Your task to perform on an android device: open wifi settings Image 0: 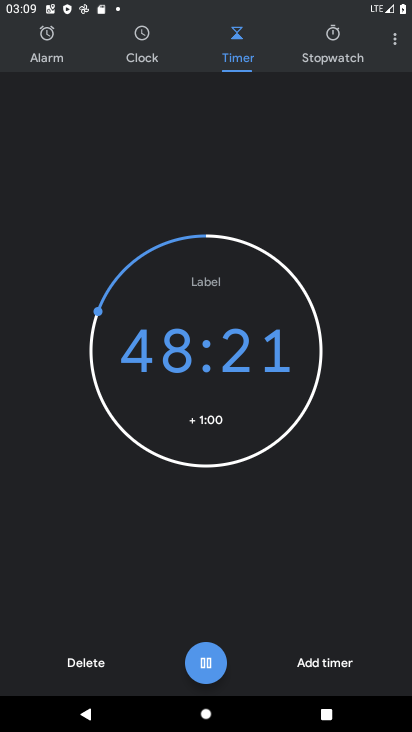
Step 0: press home button
Your task to perform on an android device: open wifi settings Image 1: 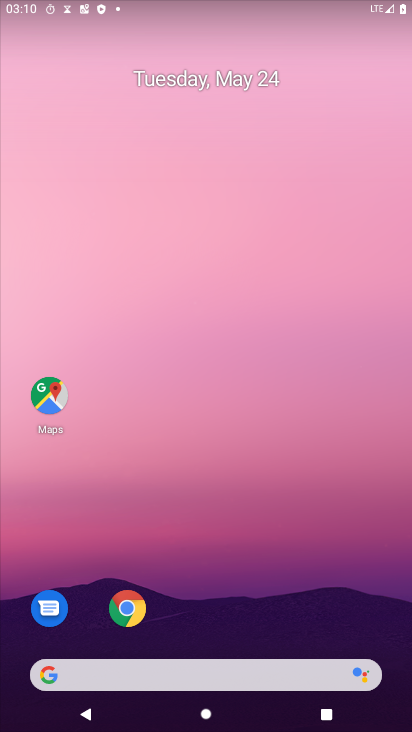
Step 1: drag from (242, 630) to (195, 119)
Your task to perform on an android device: open wifi settings Image 2: 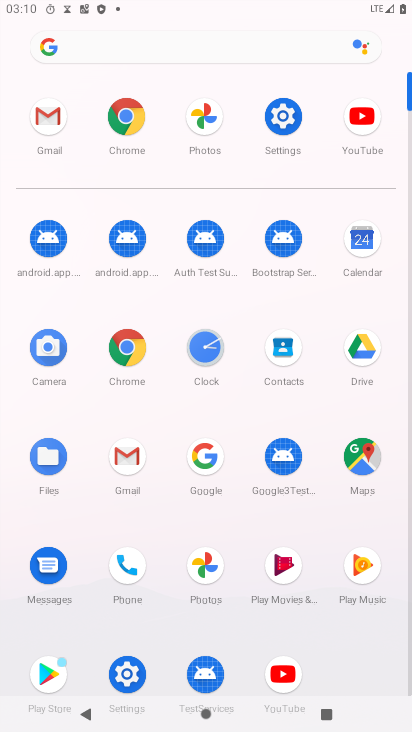
Step 2: click (285, 112)
Your task to perform on an android device: open wifi settings Image 3: 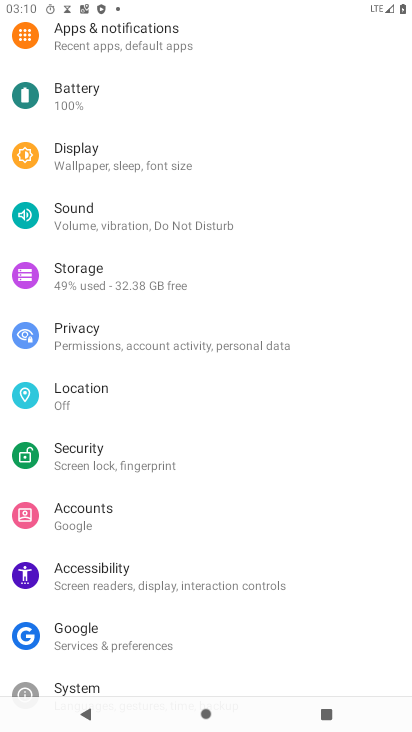
Step 3: drag from (204, 96) to (266, 565)
Your task to perform on an android device: open wifi settings Image 4: 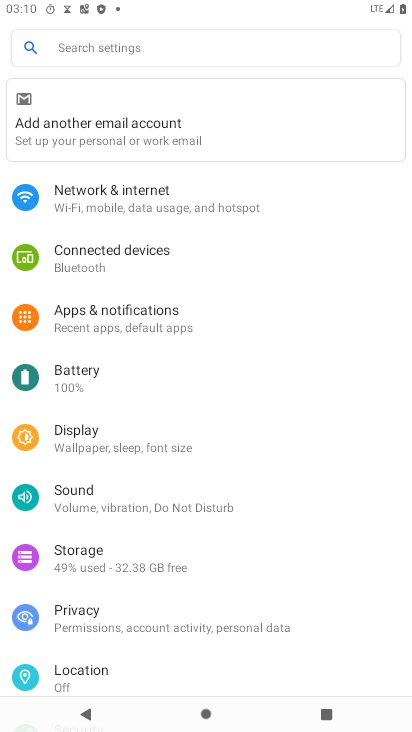
Step 4: click (172, 209)
Your task to perform on an android device: open wifi settings Image 5: 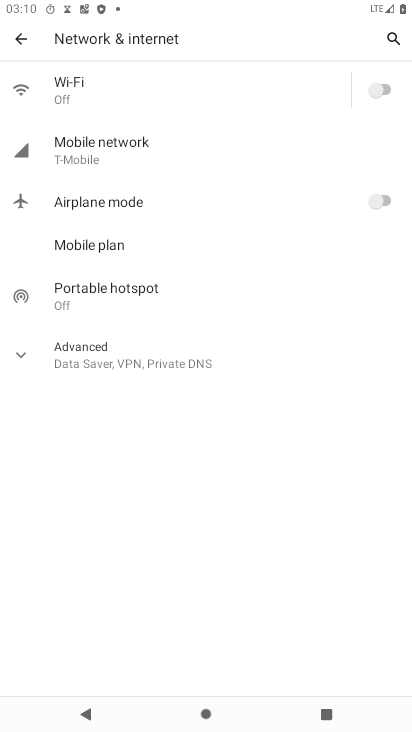
Step 5: click (114, 100)
Your task to perform on an android device: open wifi settings Image 6: 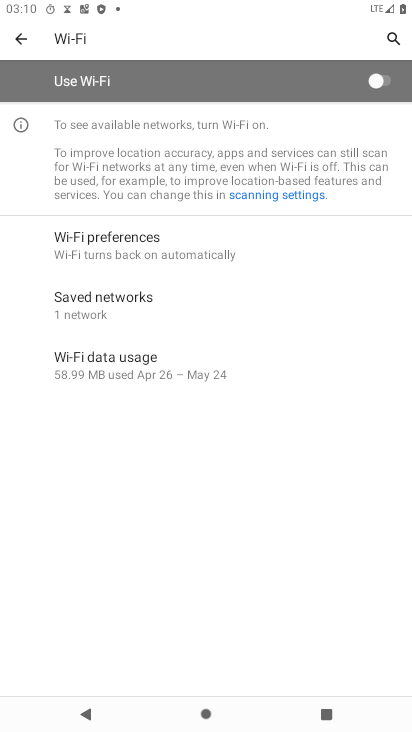
Step 6: task complete